Your task to perform on an android device: turn on javascript in the chrome app Image 0: 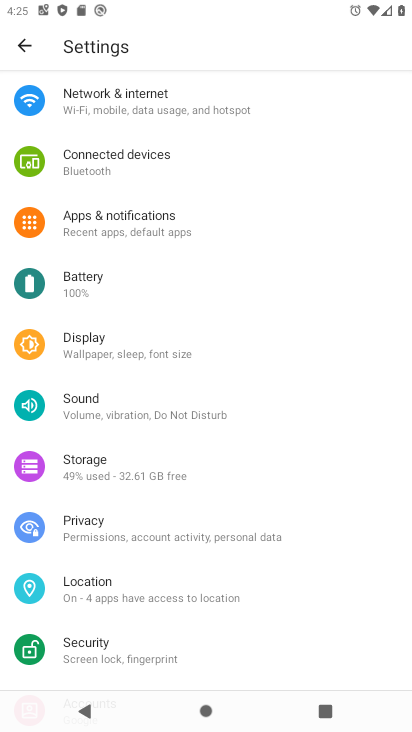
Step 0: press home button
Your task to perform on an android device: turn on javascript in the chrome app Image 1: 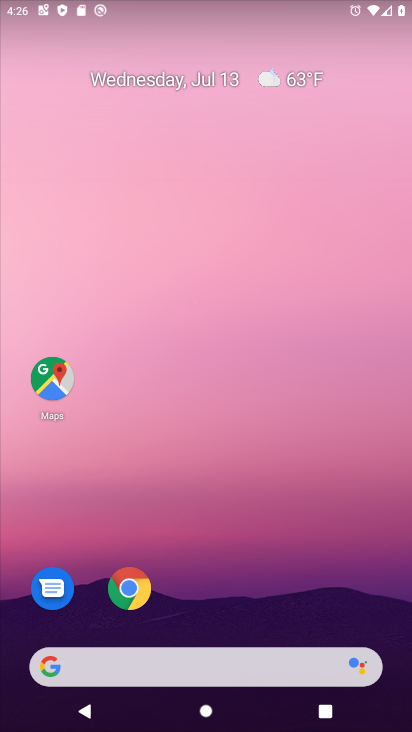
Step 1: click (132, 588)
Your task to perform on an android device: turn on javascript in the chrome app Image 2: 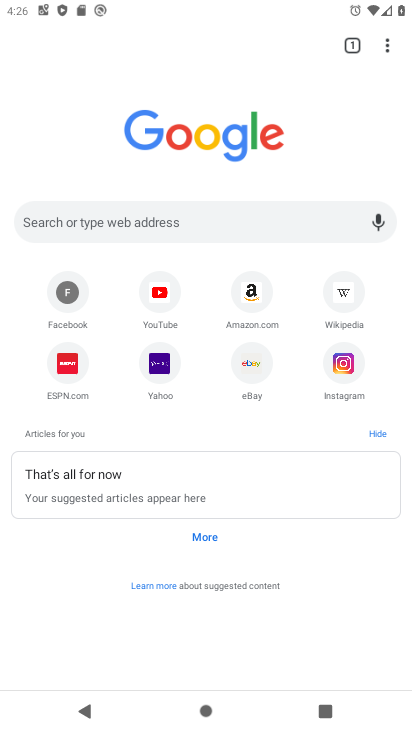
Step 2: click (389, 43)
Your task to perform on an android device: turn on javascript in the chrome app Image 3: 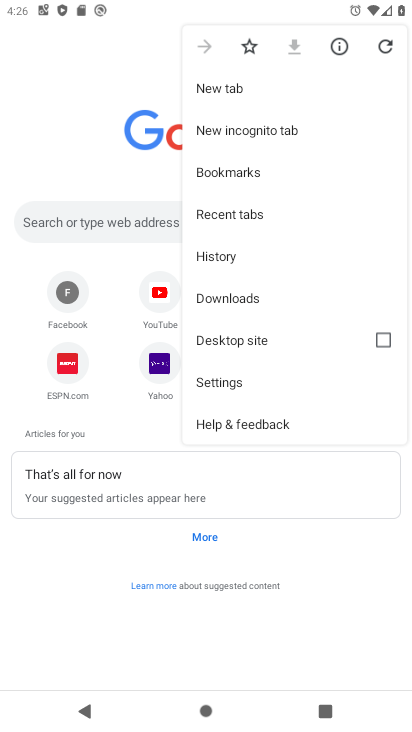
Step 3: click (223, 381)
Your task to perform on an android device: turn on javascript in the chrome app Image 4: 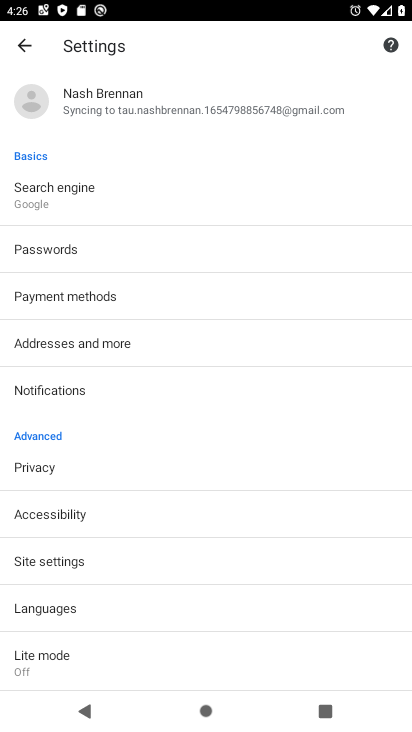
Step 4: click (52, 559)
Your task to perform on an android device: turn on javascript in the chrome app Image 5: 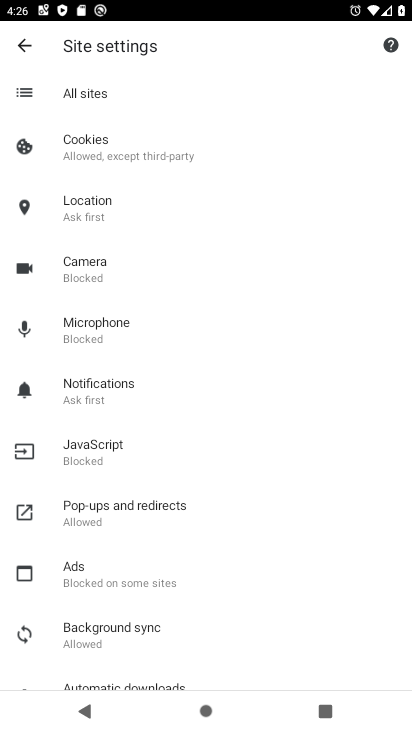
Step 5: click (98, 454)
Your task to perform on an android device: turn on javascript in the chrome app Image 6: 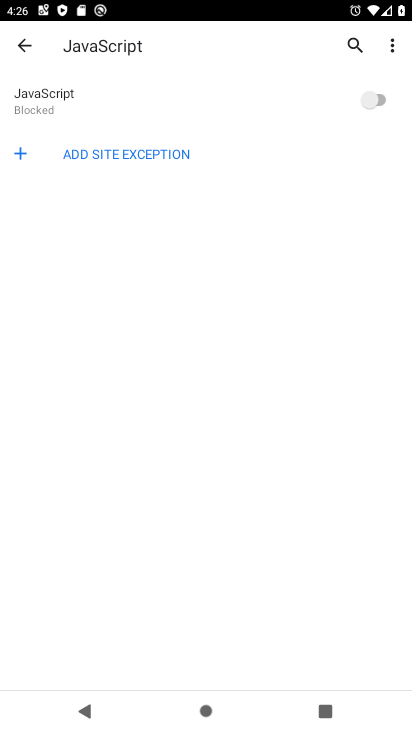
Step 6: click (373, 96)
Your task to perform on an android device: turn on javascript in the chrome app Image 7: 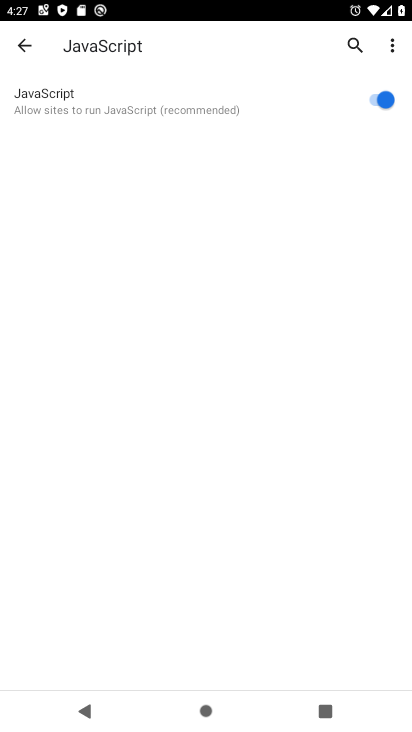
Step 7: task complete